Your task to perform on an android device: toggle improve location accuracy Image 0: 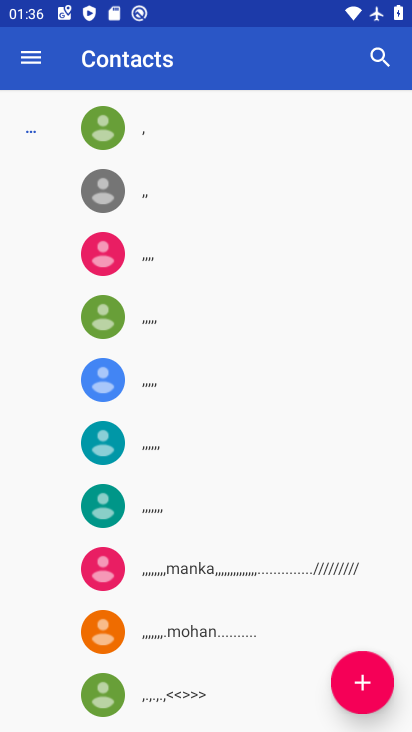
Step 0: press home button
Your task to perform on an android device: toggle improve location accuracy Image 1: 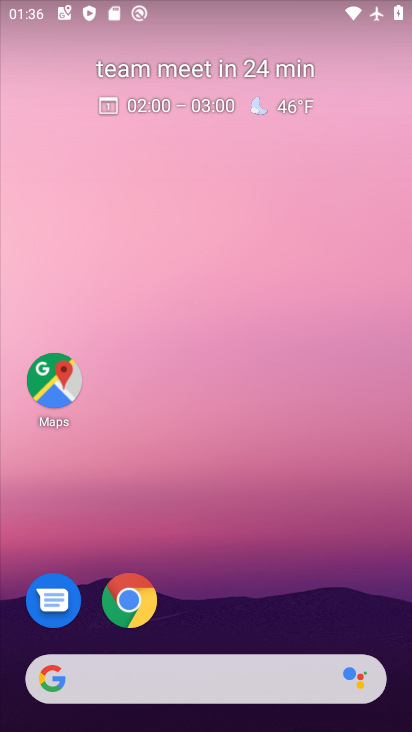
Step 1: drag from (236, 647) to (210, 156)
Your task to perform on an android device: toggle improve location accuracy Image 2: 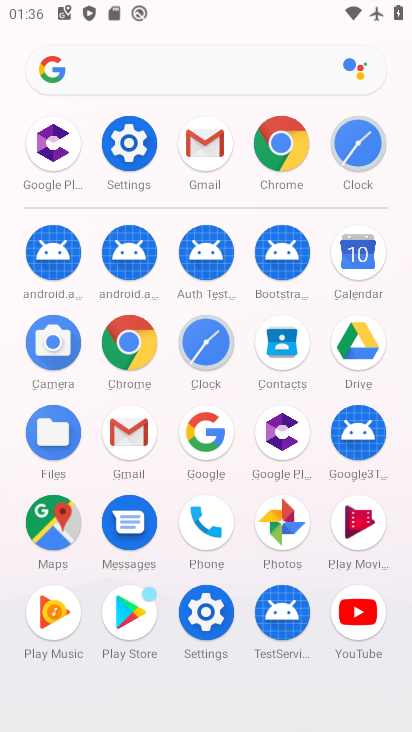
Step 2: click (128, 150)
Your task to perform on an android device: toggle improve location accuracy Image 3: 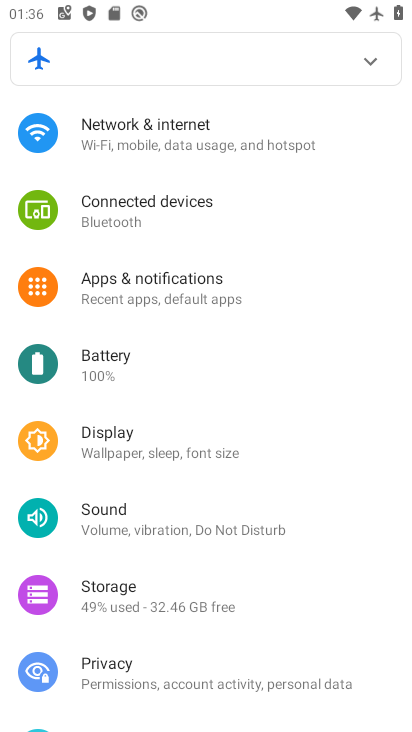
Step 3: drag from (152, 680) to (132, 522)
Your task to perform on an android device: toggle improve location accuracy Image 4: 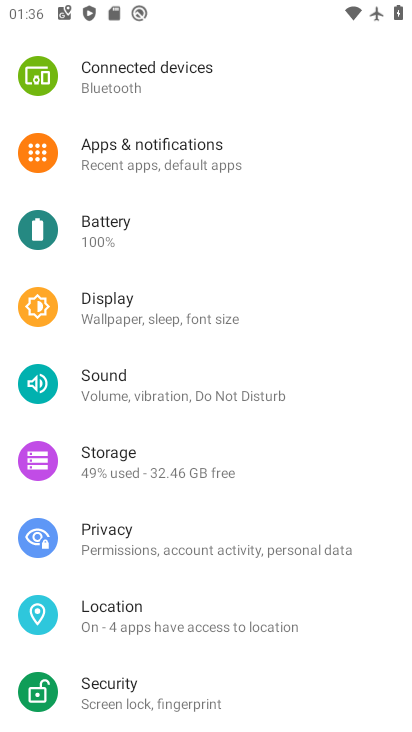
Step 4: click (149, 629)
Your task to perform on an android device: toggle improve location accuracy Image 5: 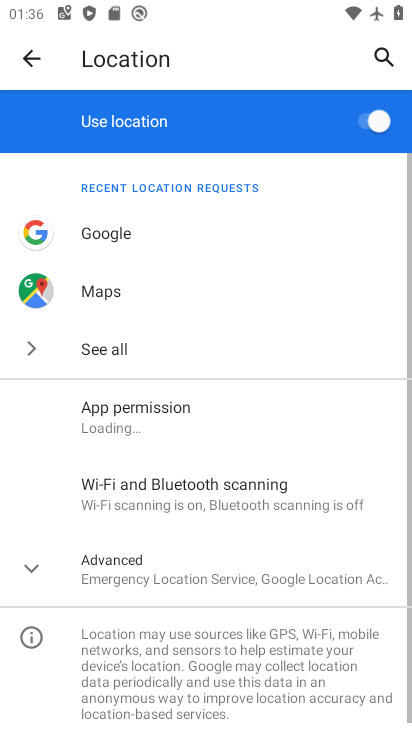
Step 5: click (168, 553)
Your task to perform on an android device: toggle improve location accuracy Image 6: 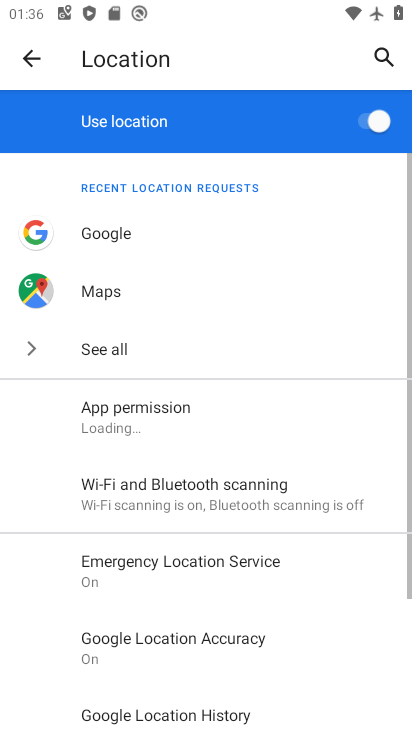
Step 6: drag from (167, 555) to (140, 380)
Your task to perform on an android device: toggle improve location accuracy Image 7: 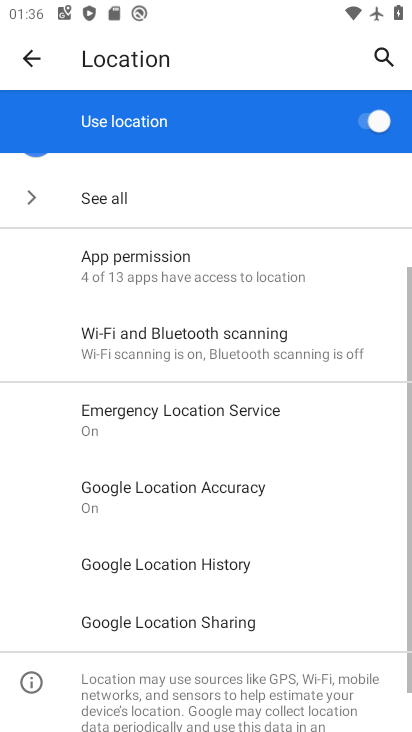
Step 7: click (144, 470)
Your task to perform on an android device: toggle improve location accuracy Image 8: 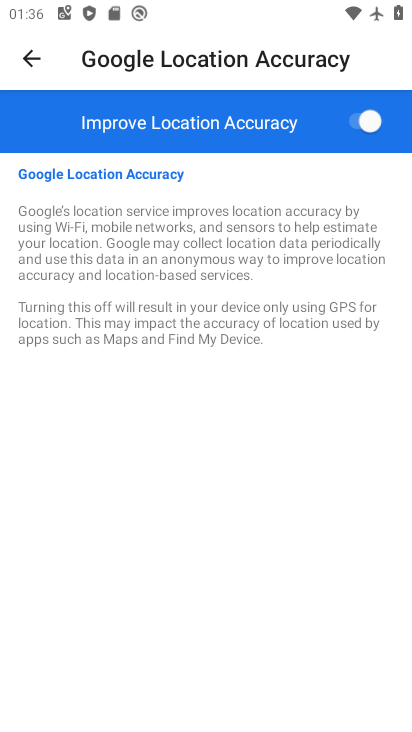
Step 8: click (349, 127)
Your task to perform on an android device: toggle improve location accuracy Image 9: 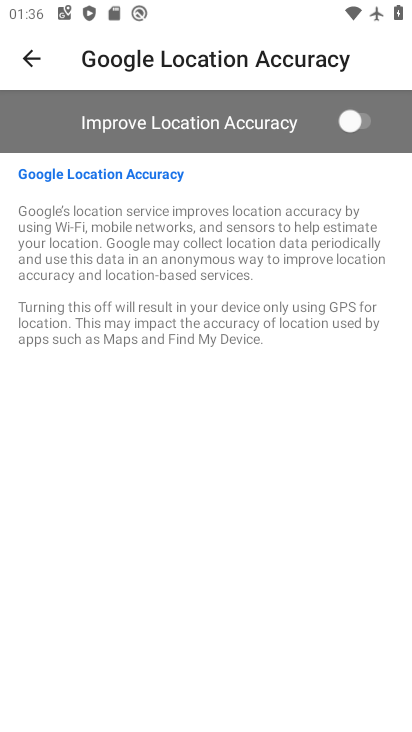
Step 9: task complete